Your task to perform on an android device: Open notification settings Image 0: 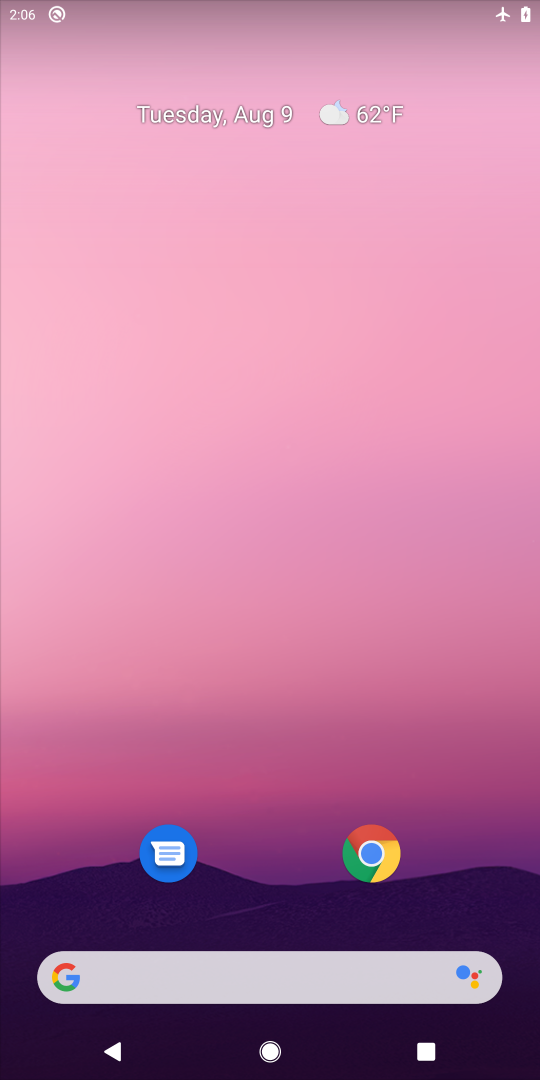
Step 0: press home button
Your task to perform on an android device: Open notification settings Image 1: 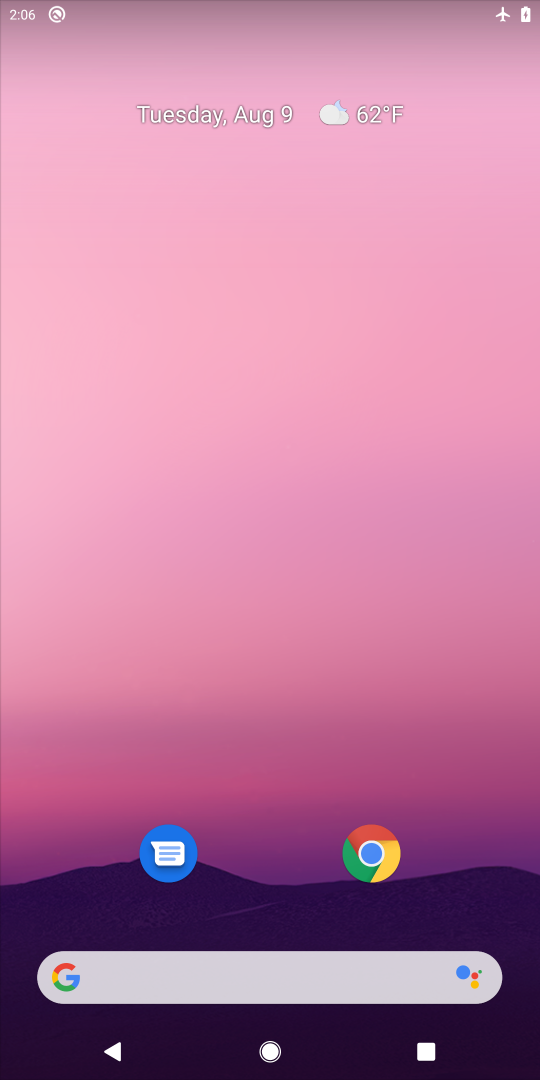
Step 1: drag from (259, 883) to (300, 191)
Your task to perform on an android device: Open notification settings Image 2: 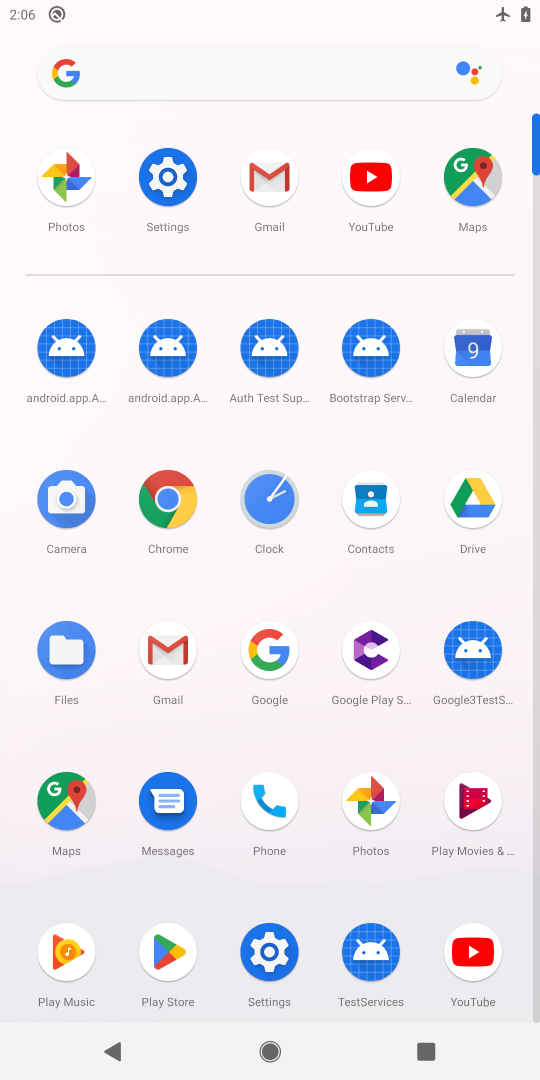
Step 2: click (169, 185)
Your task to perform on an android device: Open notification settings Image 3: 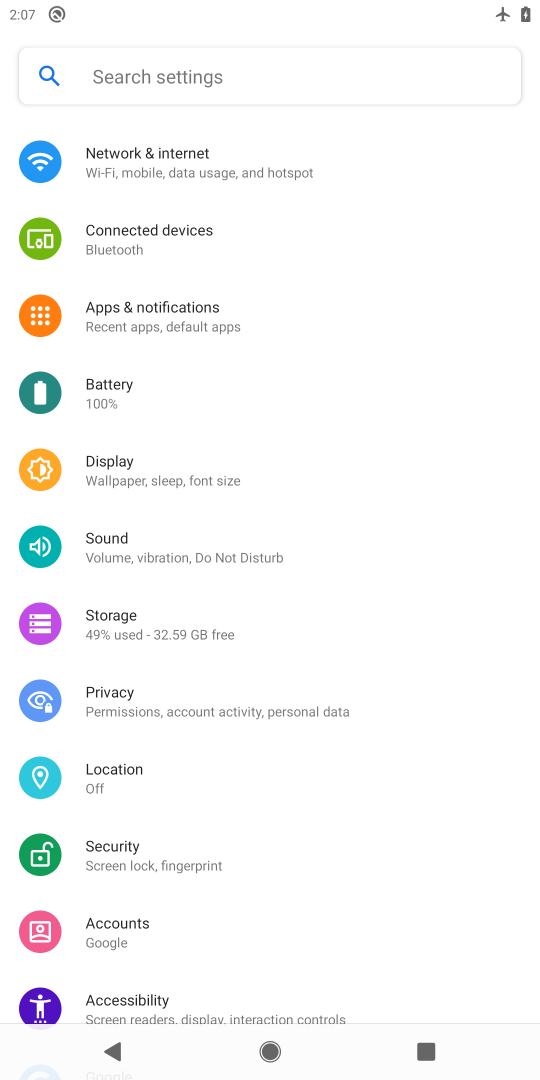
Step 3: click (133, 325)
Your task to perform on an android device: Open notification settings Image 4: 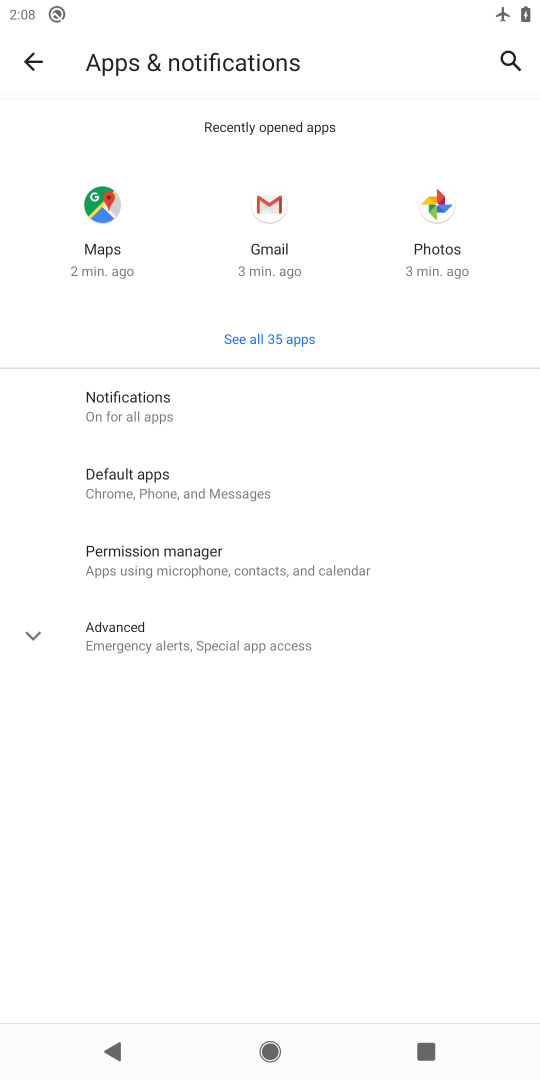
Step 4: click (150, 390)
Your task to perform on an android device: Open notification settings Image 5: 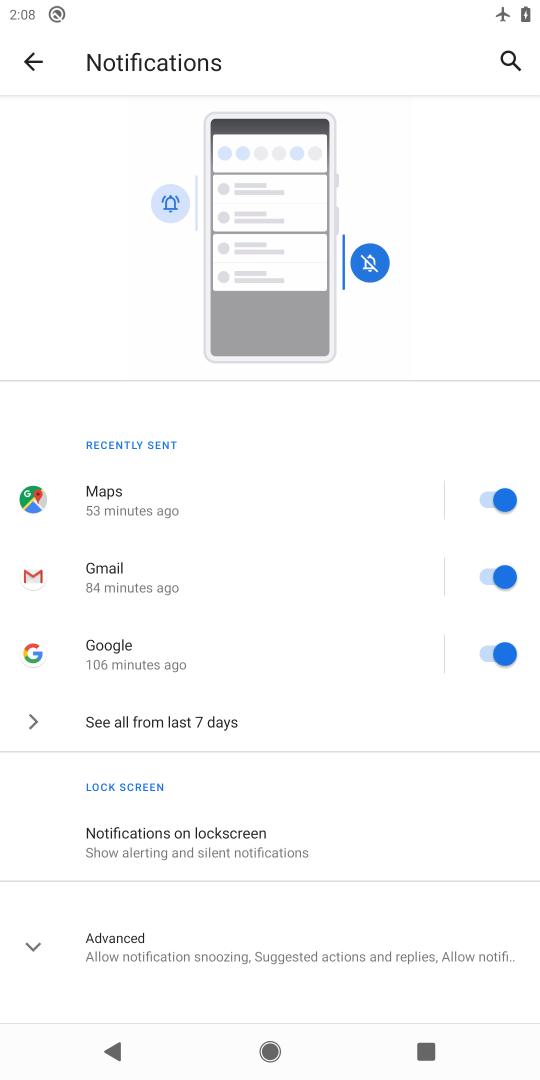
Step 5: click (176, 209)
Your task to perform on an android device: Open notification settings Image 6: 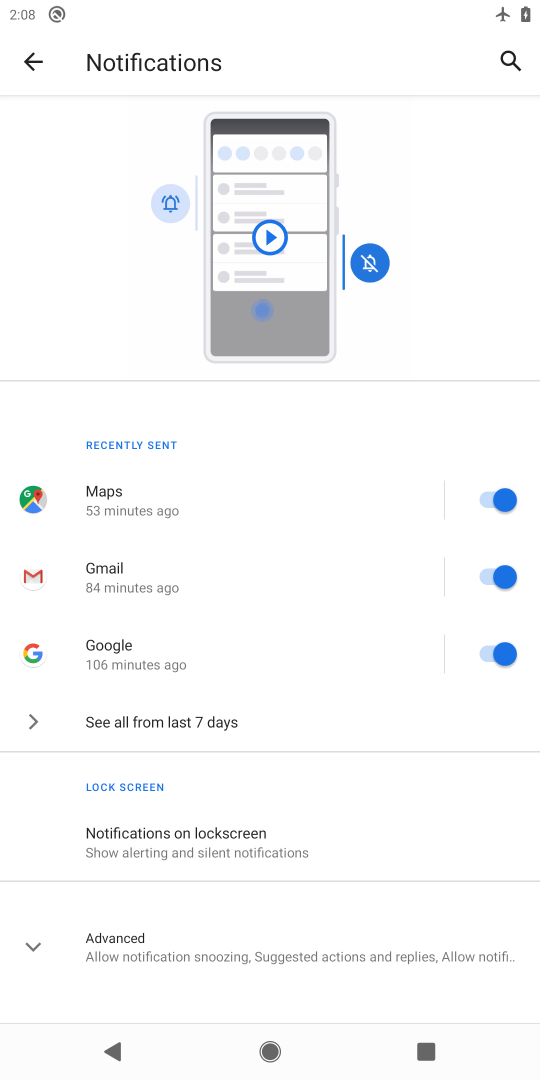
Step 6: click (375, 265)
Your task to perform on an android device: Open notification settings Image 7: 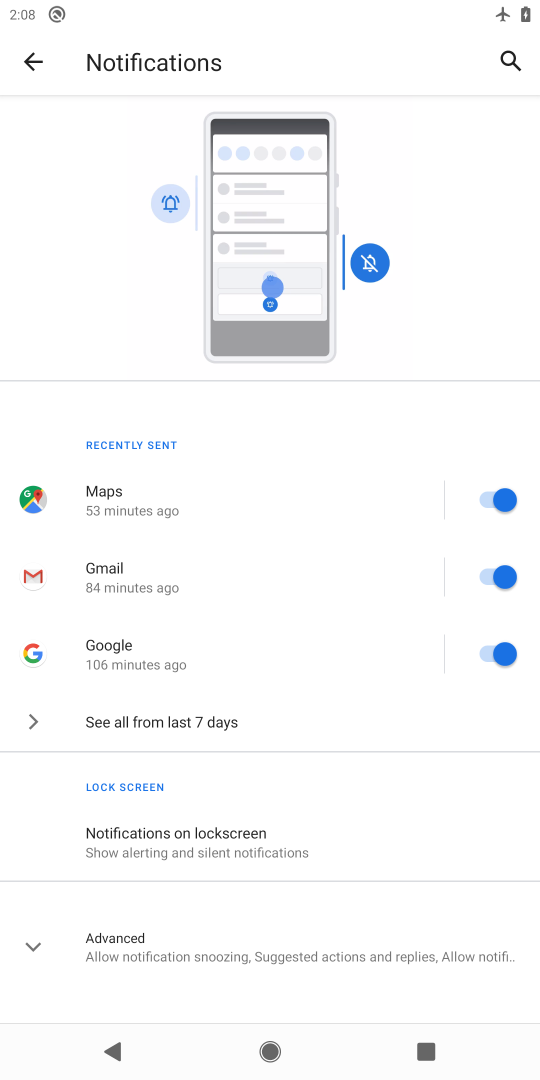
Step 7: click (172, 204)
Your task to perform on an android device: Open notification settings Image 8: 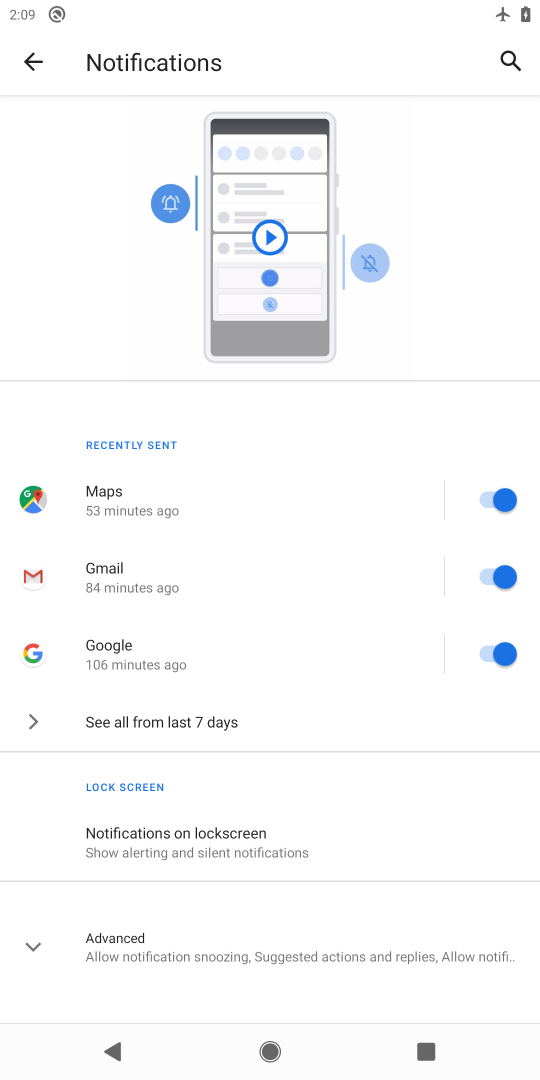
Step 8: task complete